Your task to perform on an android device: turn off improve location accuracy Image 0: 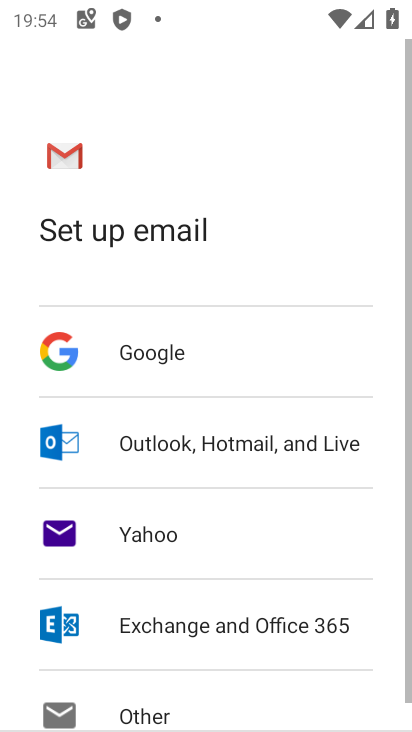
Step 0: press home button
Your task to perform on an android device: turn off improve location accuracy Image 1: 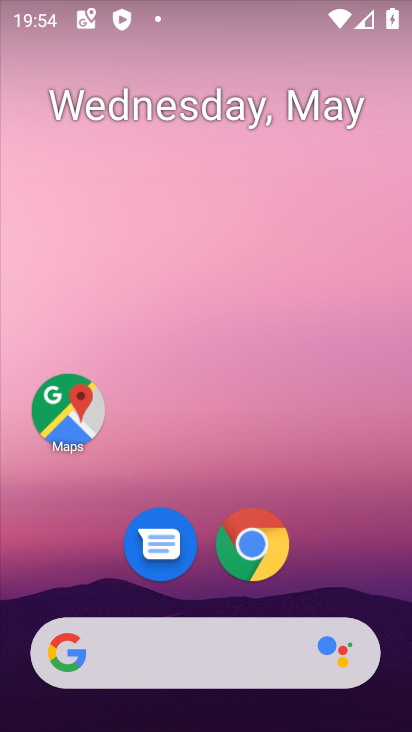
Step 1: drag from (213, 591) to (183, 35)
Your task to perform on an android device: turn off improve location accuracy Image 2: 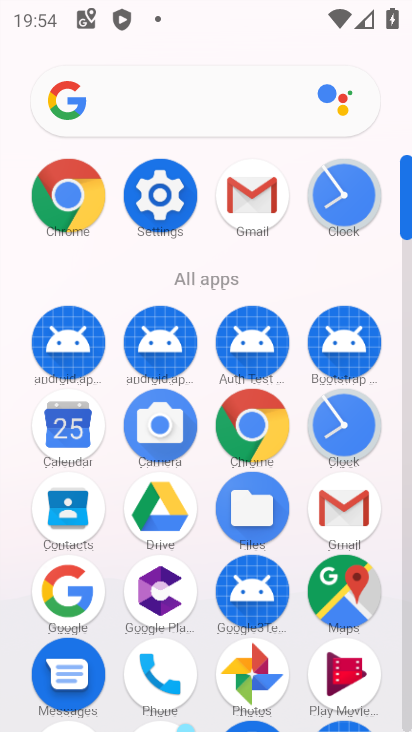
Step 2: click (164, 195)
Your task to perform on an android device: turn off improve location accuracy Image 3: 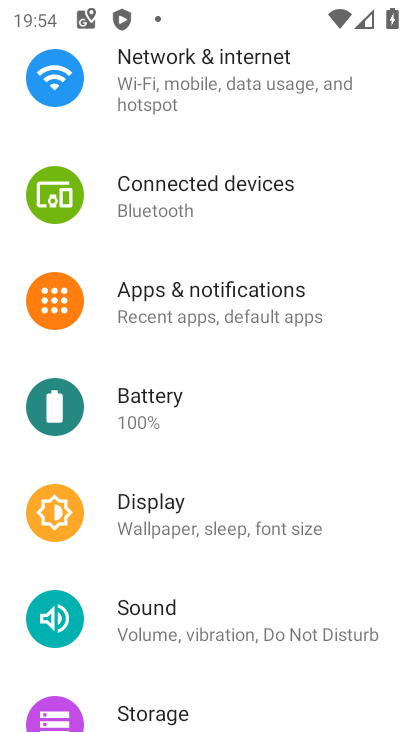
Step 3: drag from (100, 665) to (223, 207)
Your task to perform on an android device: turn off improve location accuracy Image 4: 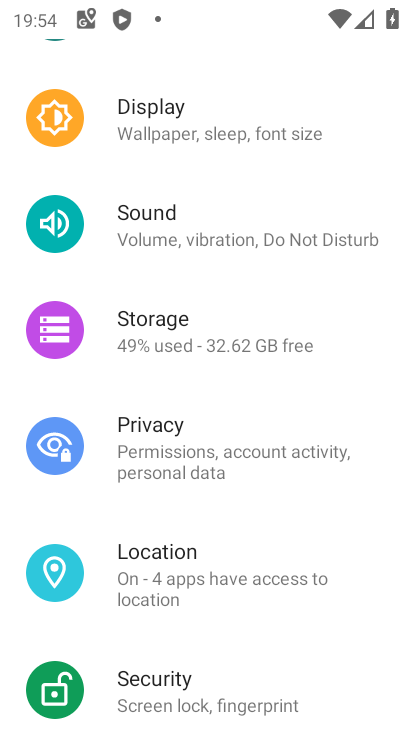
Step 4: click (146, 540)
Your task to perform on an android device: turn off improve location accuracy Image 5: 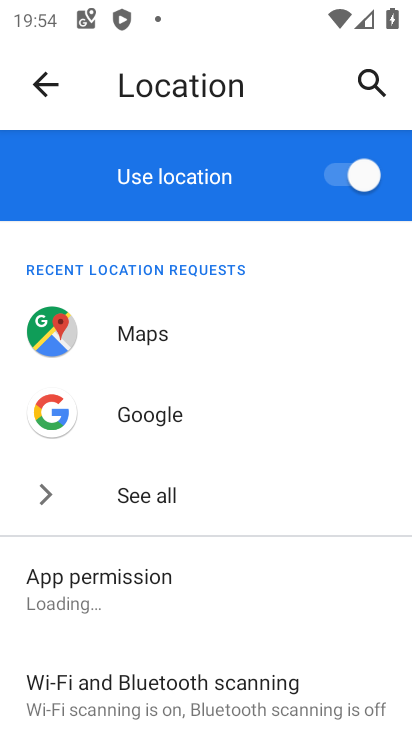
Step 5: drag from (155, 654) to (215, 137)
Your task to perform on an android device: turn off improve location accuracy Image 6: 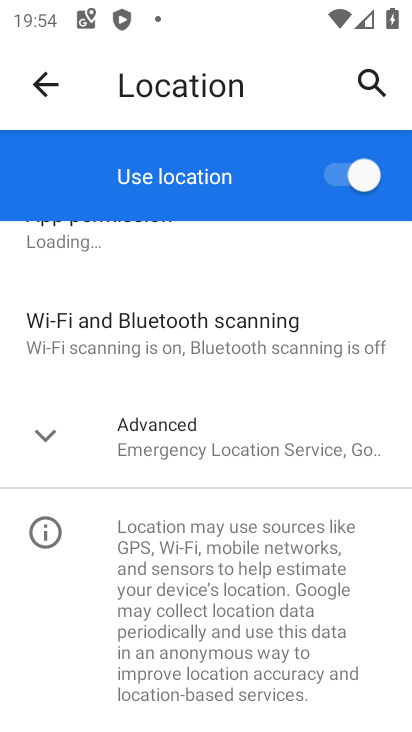
Step 6: click (140, 449)
Your task to perform on an android device: turn off improve location accuracy Image 7: 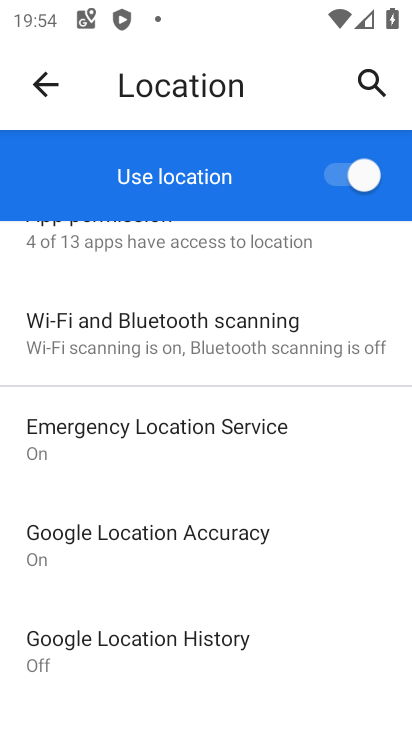
Step 7: click (139, 552)
Your task to perform on an android device: turn off improve location accuracy Image 8: 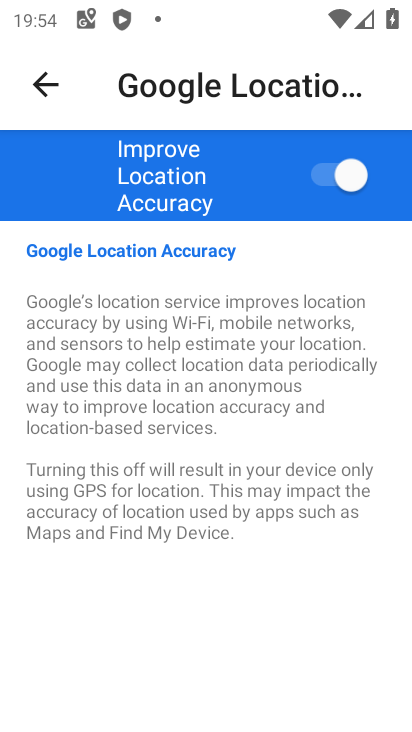
Step 8: click (340, 173)
Your task to perform on an android device: turn off improve location accuracy Image 9: 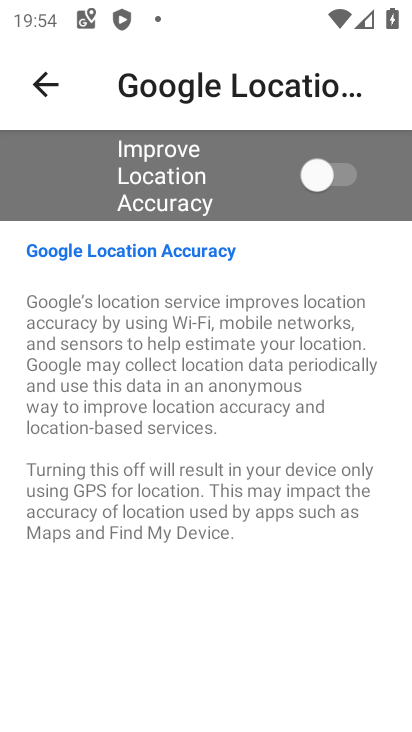
Step 9: task complete